Your task to perform on an android device: choose inbox layout in the gmail app Image 0: 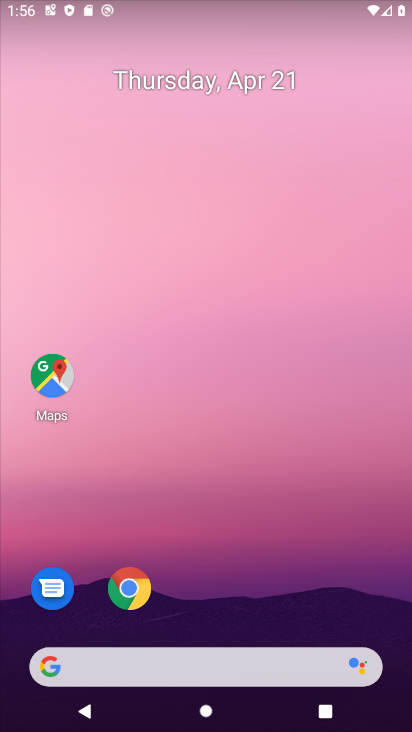
Step 0: drag from (212, 530) to (212, 211)
Your task to perform on an android device: choose inbox layout in the gmail app Image 1: 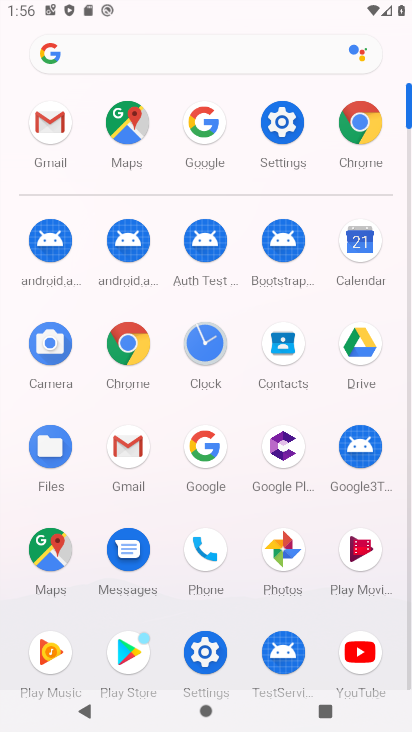
Step 1: click (122, 447)
Your task to perform on an android device: choose inbox layout in the gmail app Image 2: 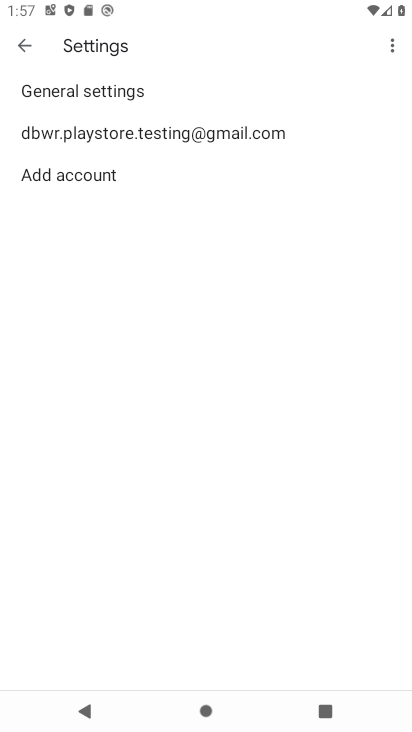
Step 2: task complete